Your task to perform on an android device: Set the phone to "Do not disturb". Image 0: 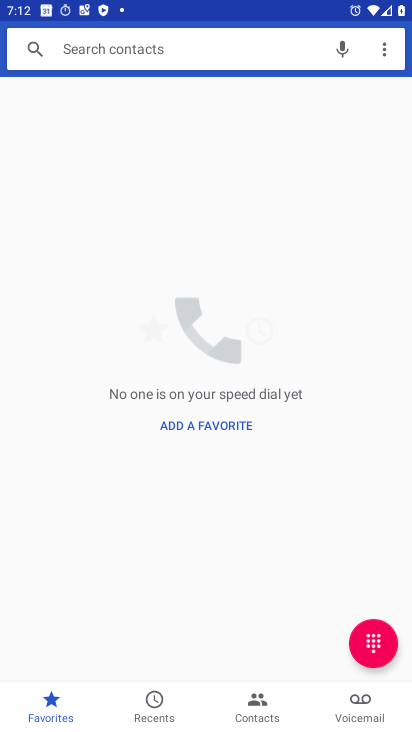
Step 0: press home button
Your task to perform on an android device: Set the phone to "Do not disturb". Image 1: 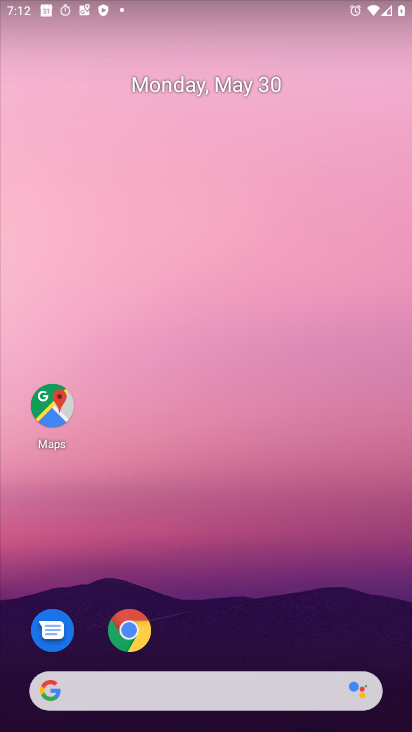
Step 1: drag from (223, 7) to (230, 573)
Your task to perform on an android device: Set the phone to "Do not disturb". Image 2: 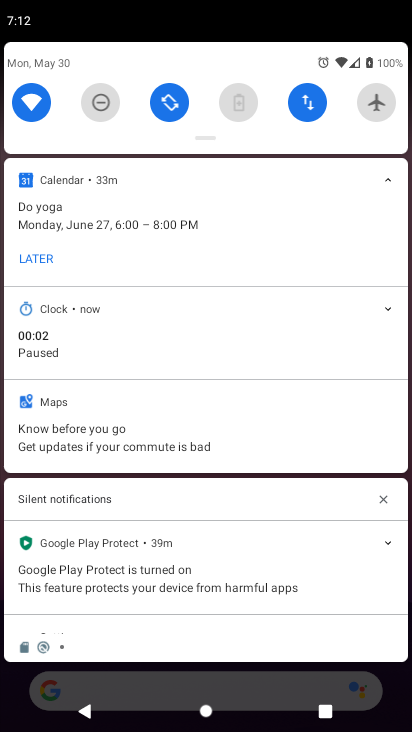
Step 2: click (93, 97)
Your task to perform on an android device: Set the phone to "Do not disturb". Image 3: 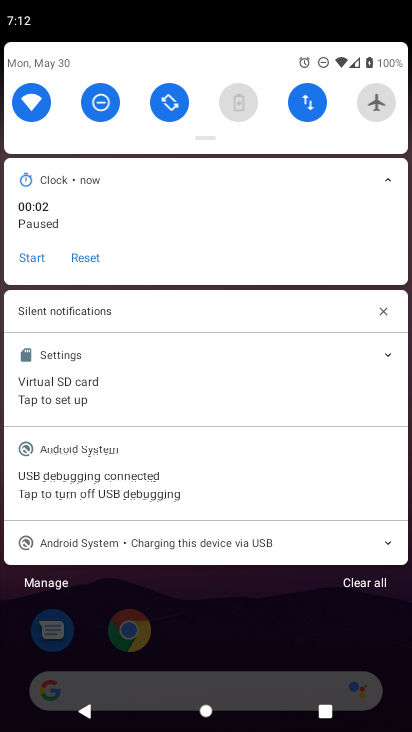
Step 3: task complete